Your task to perform on an android device: turn off javascript in the chrome app Image 0: 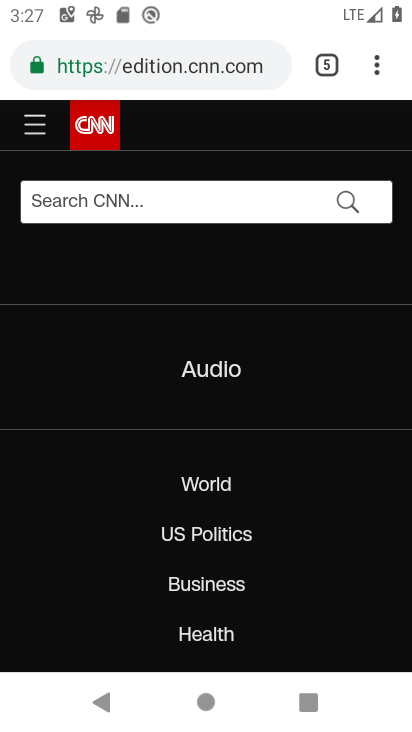
Step 0: drag from (379, 76) to (172, 575)
Your task to perform on an android device: turn off javascript in the chrome app Image 1: 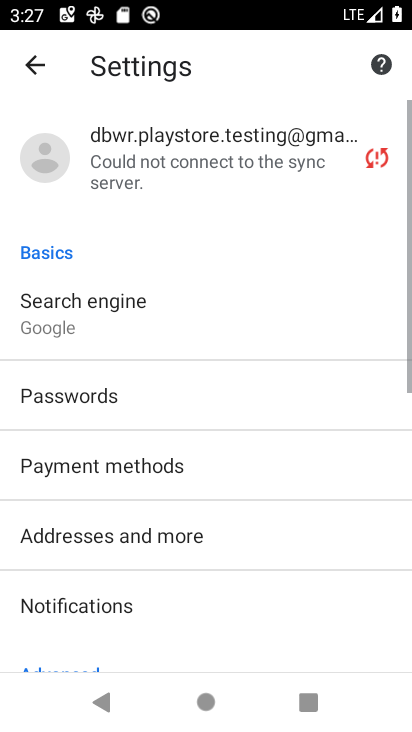
Step 1: drag from (164, 553) to (248, 162)
Your task to perform on an android device: turn off javascript in the chrome app Image 2: 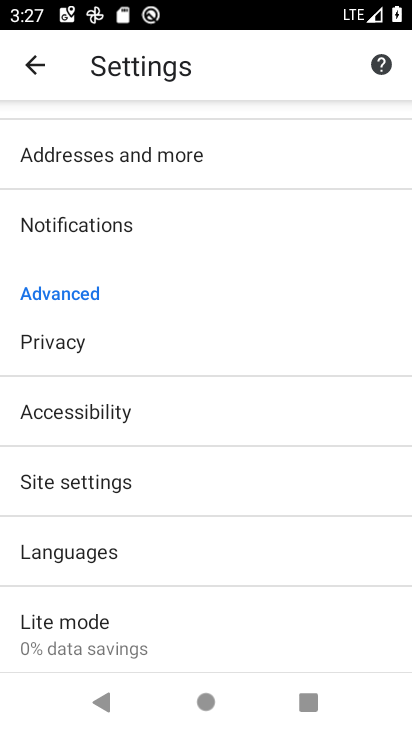
Step 2: click (137, 491)
Your task to perform on an android device: turn off javascript in the chrome app Image 3: 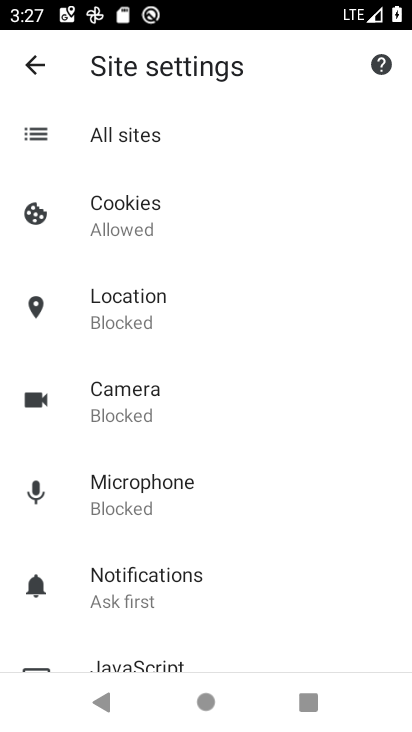
Step 3: drag from (215, 641) to (264, 246)
Your task to perform on an android device: turn off javascript in the chrome app Image 4: 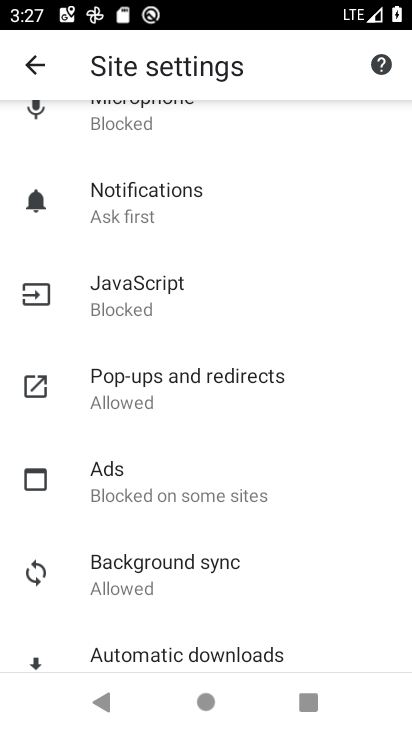
Step 4: click (178, 295)
Your task to perform on an android device: turn off javascript in the chrome app Image 5: 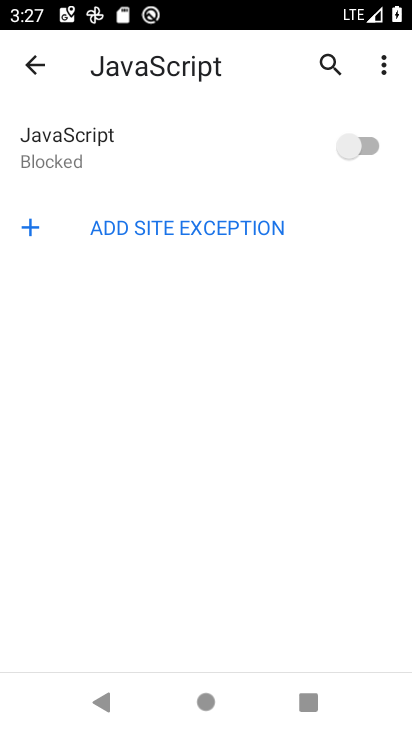
Step 5: task complete